Your task to perform on an android device: check google app version Image 0: 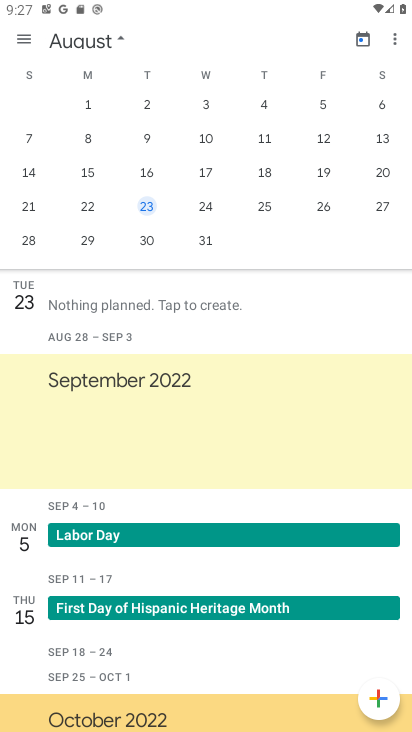
Step 0: press back button
Your task to perform on an android device: check google app version Image 1: 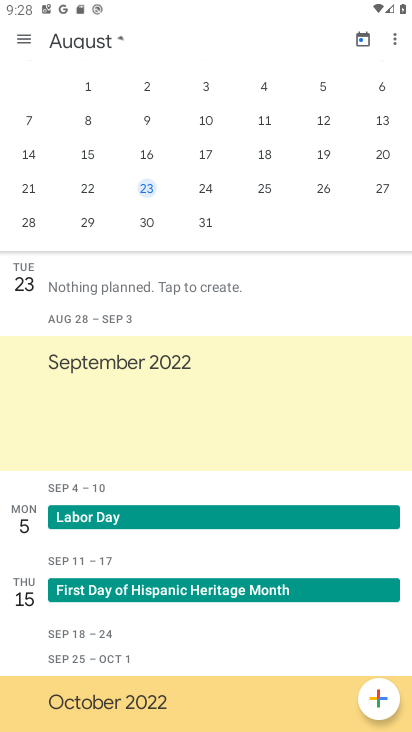
Step 1: press back button
Your task to perform on an android device: check google app version Image 2: 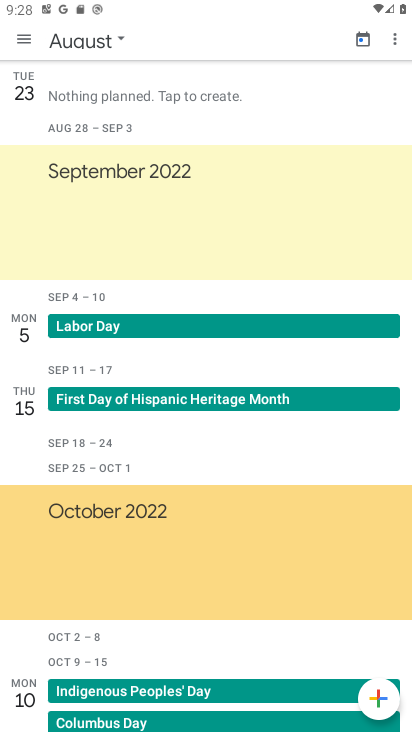
Step 2: press back button
Your task to perform on an android device: check google app version Image 3: 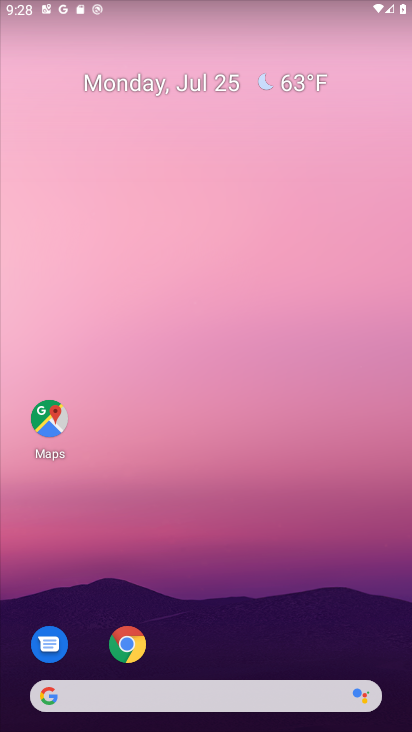
Step 3: drag from (188, 424) to (188, 101)
Your task to perform on an android device: check google app version Image 4: 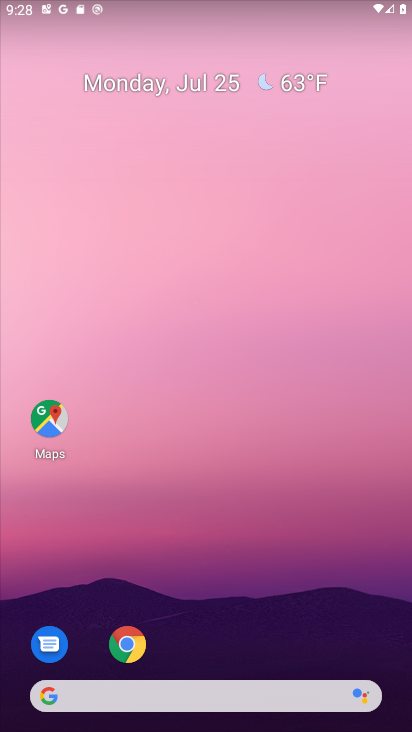
Step 4: drag from (143, 671) to (153, 167)
Your task to perform on an android device: check google app version Image 5: 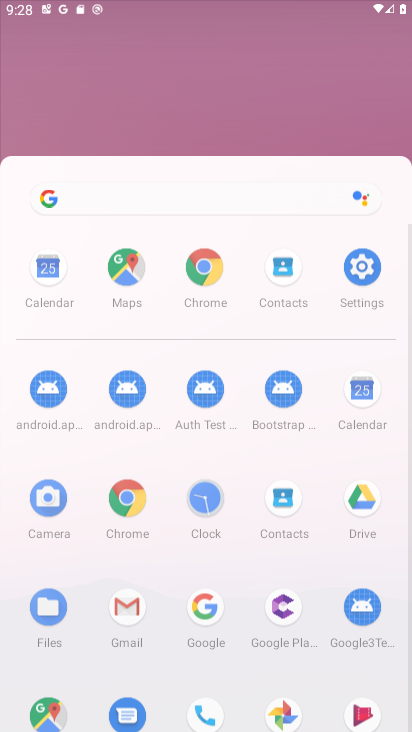
Step 5: drag from (217, 582) to (217, 223)
Your task to perform on an android device: check google app version Image 6: 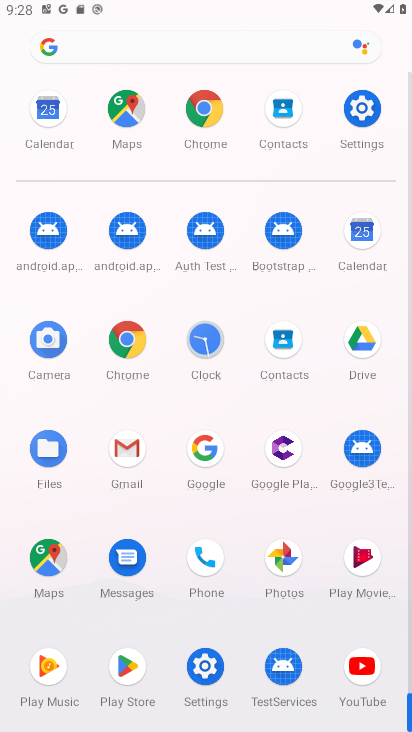
Step 6: click (203, 448)
Your task to perform on an android device: check google app version Image 7: 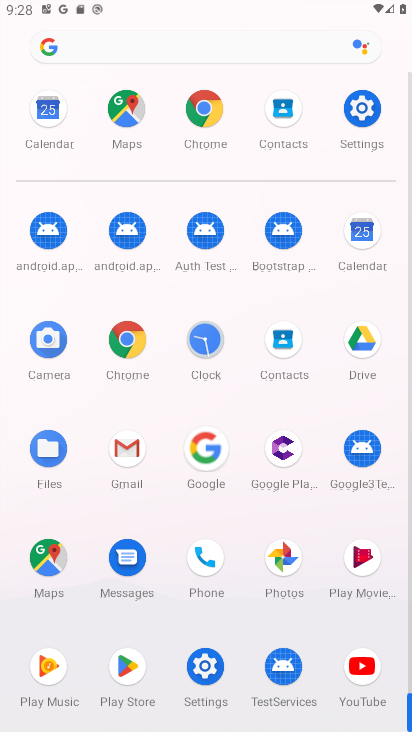
Step 7: click (205, 446)
Your task to perform on an android device: check google app version Image 8: 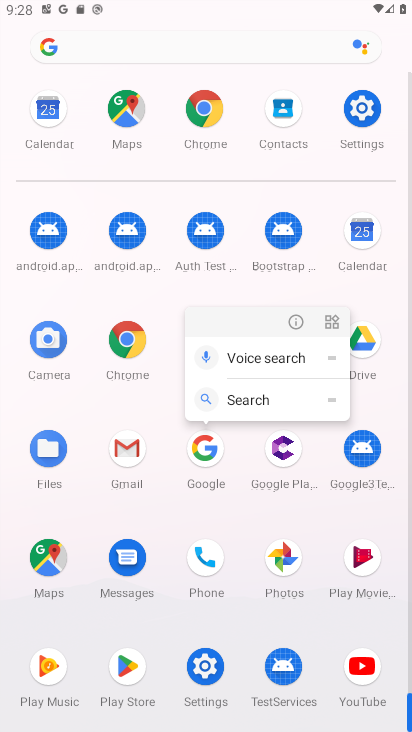
Step 8: click (212, 452)
Your task to perform on an android device: check google app version Image 9: 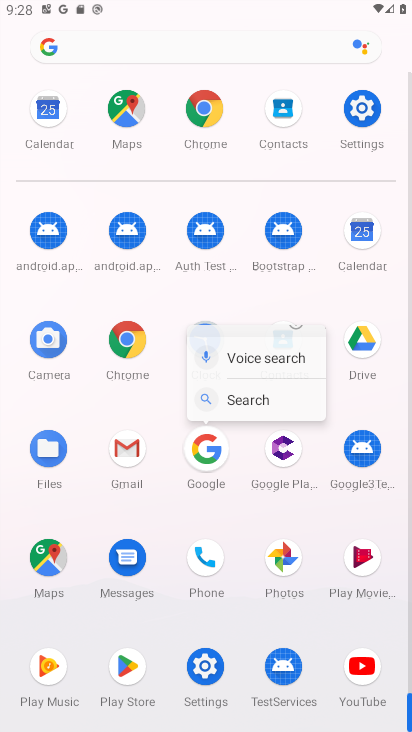
Step 9: click (199, 453)
Your task to perform on an android device: check google app version Image 10: 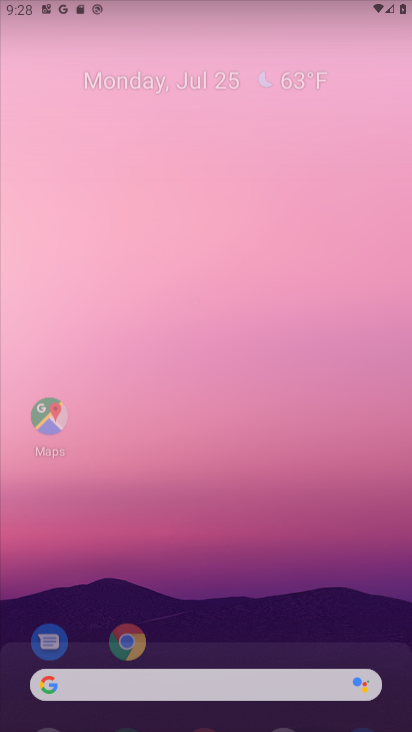
Step 10: click (199, 453)
Your task to perform on an android device: check google app version Image 11: 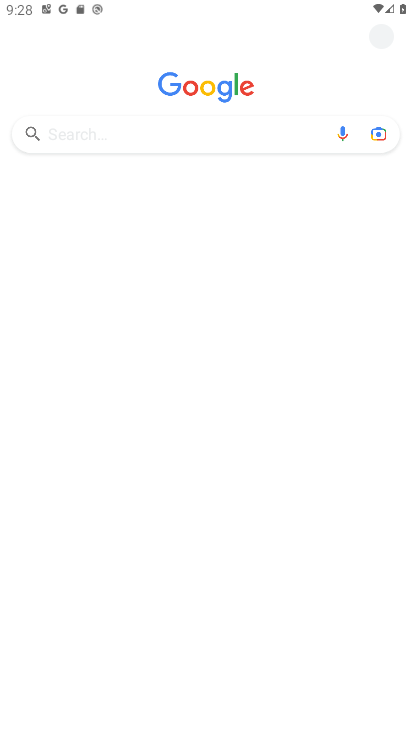
Step 11: drag from (209, 681) to (207, 300)
Your task to perform on an android device: check google app version Image 12: 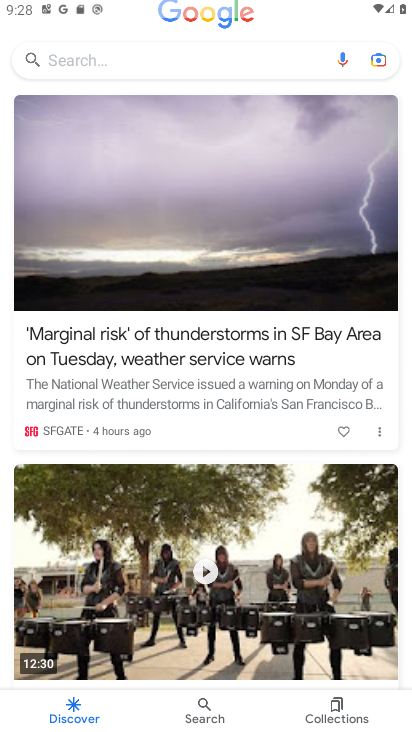
Step 12: drag from (208, 55) to (220, 490)
Your task to perform on an android device: check google app version Image 13: 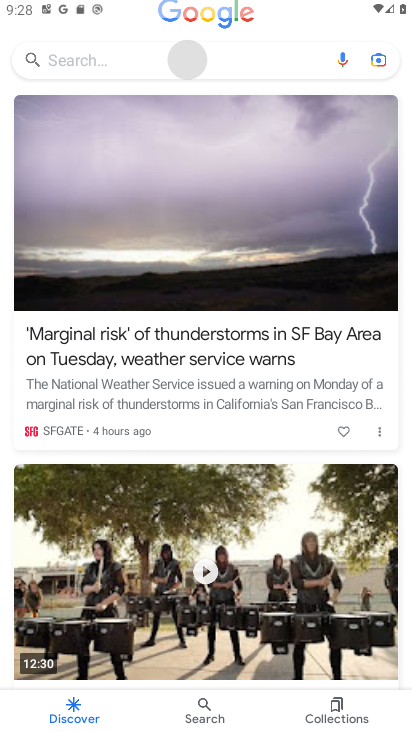
Step 13: drag from (239, 175) to (299, 561)
Your task to perform on an android device: check google app version Image 14: 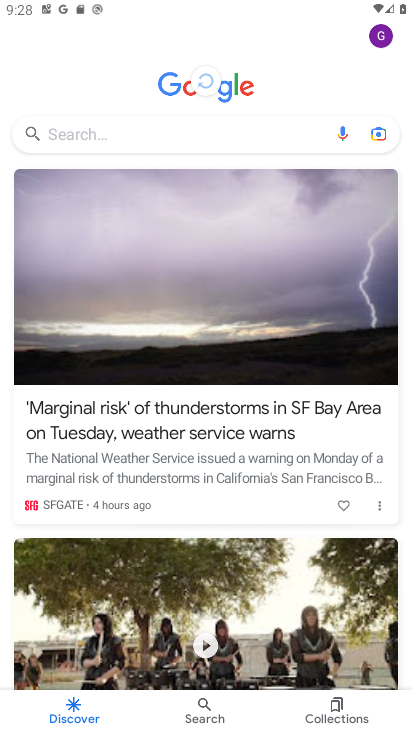
Step 14: drag from (283, 133) to (282, 466)
Your task to perform on an android device: check google app version Image 15: 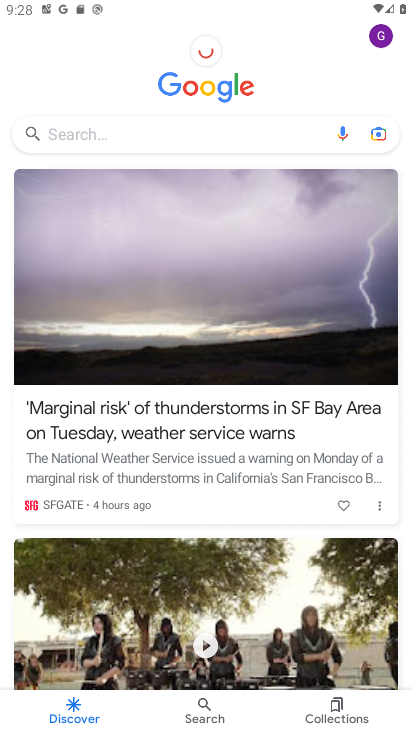
Step 15: click (376, 37)
Your task to perform on an android device: check google app version Image 16: 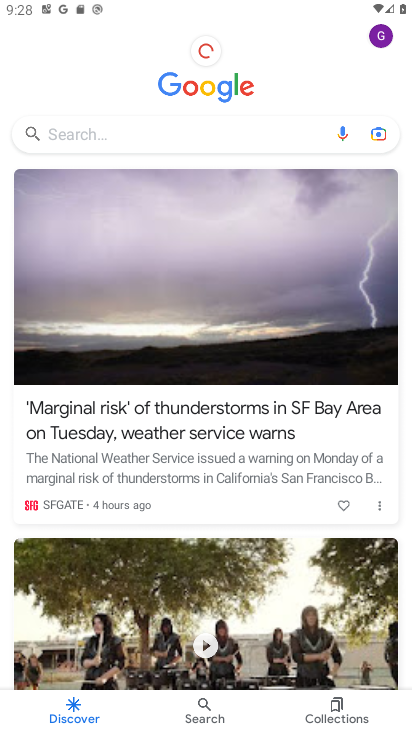
Step 16: click (377, 36)
Your task to perform on an android device: check google app version Image 17: 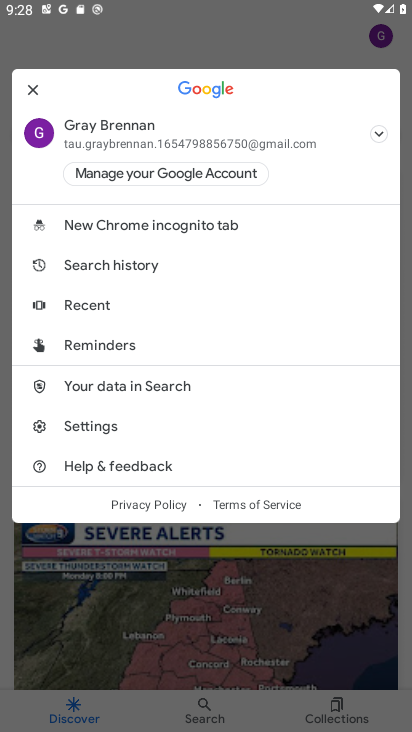
Step 17: click (93, 429)
Your task to perform on an android device: check google app version Image 18: 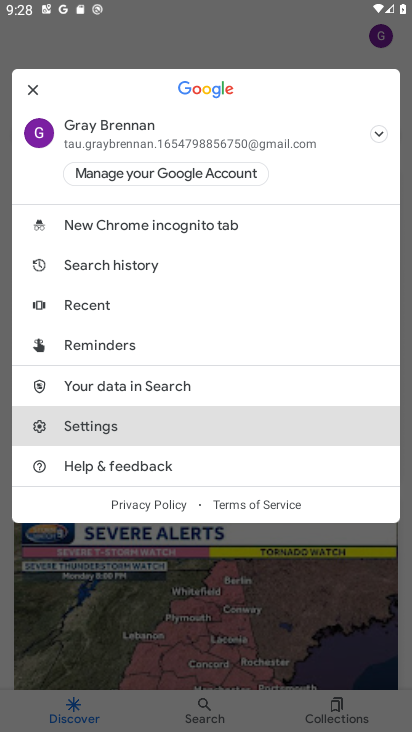
Step 18: click (93, 429)
Your task to perform on an android device: check google app version Image 19: 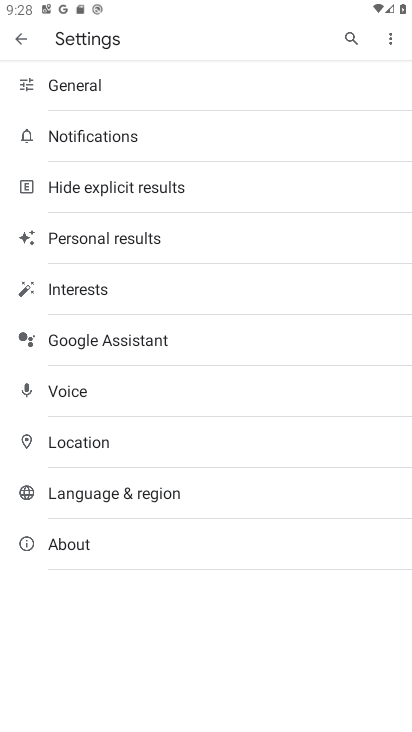
Step 19: click (97, 532)
Your task to perform on an android device: check google app version Image 20: 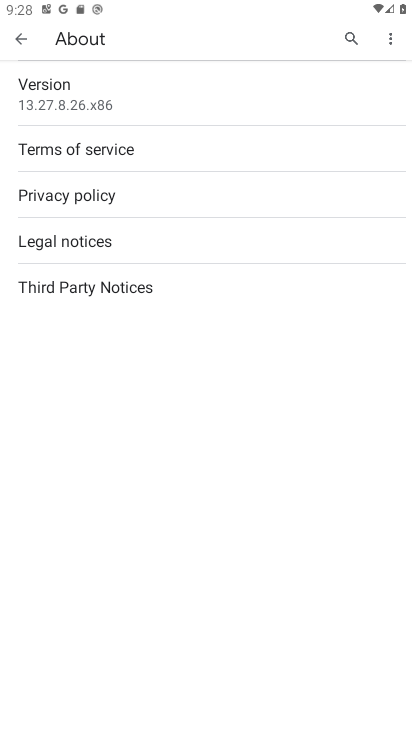
Step 20: click (86, 81)
Your task to perform on an android device: check google app version Image 21: 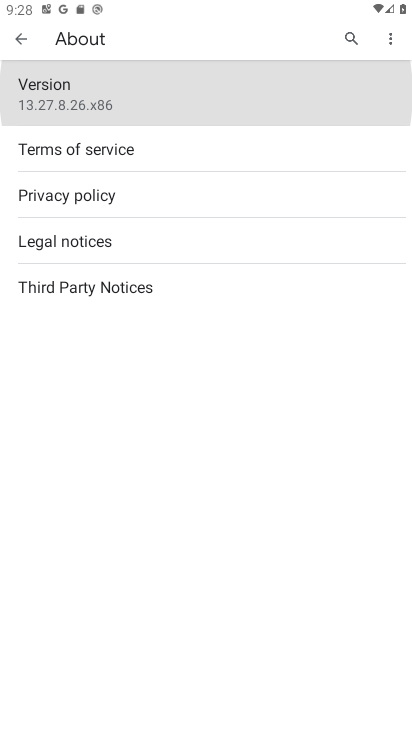
Step 21: click (109, 106)
Your task to perform on an android device: check google app version Image 22: 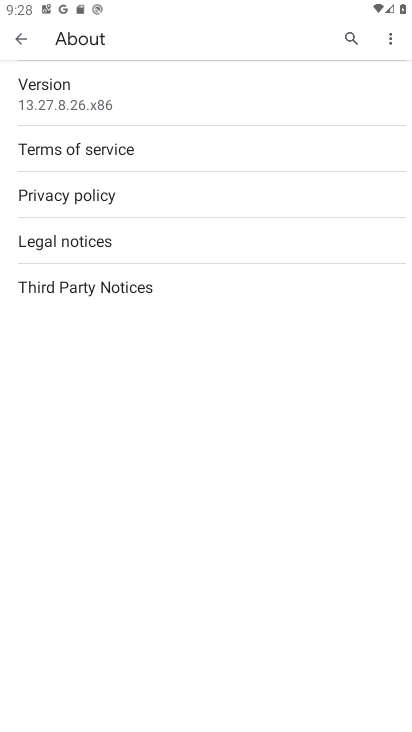
Step 22: click (118, 109)
Your task to perform on an android device: check google app version Image 23: 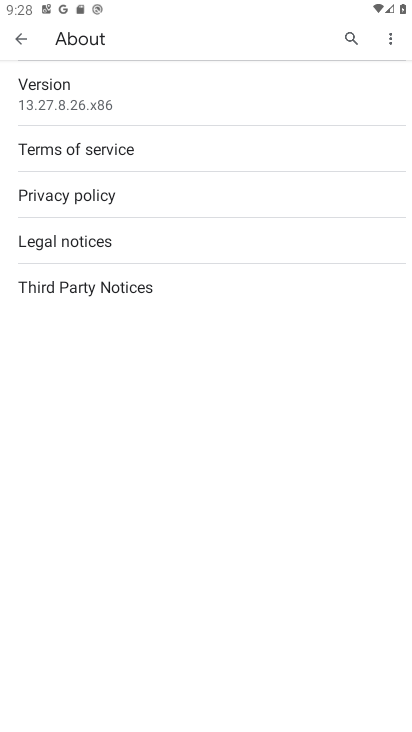
Step 23: click (76, 98)
Your task to perform on an android device: check google app version Image 24: 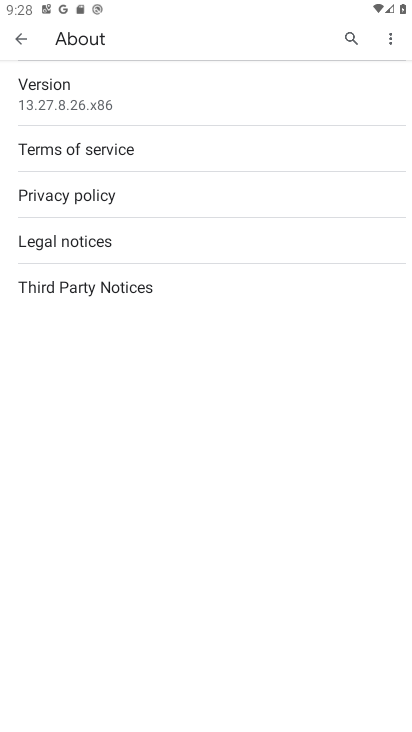
Step 24: click (78, 92)
Your task to perform on an android device: check google app version Image 25: 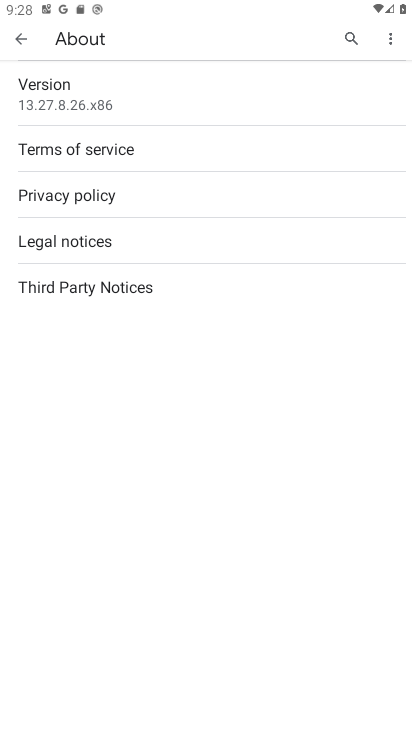
Step 25: task complete